Your task to perform on an android device: turn on notifications settings in the gmail app Image 0: 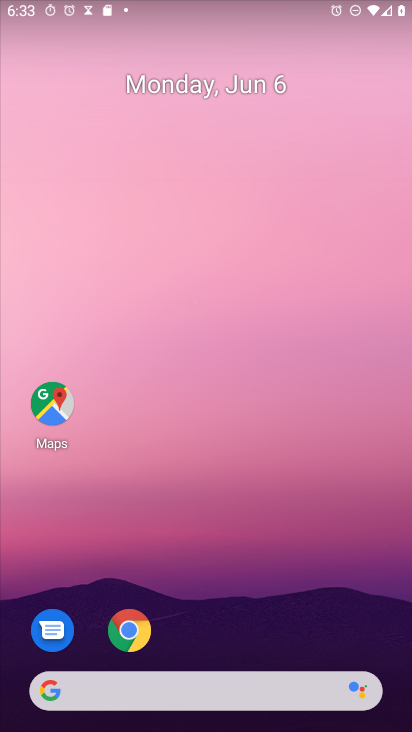
Step 0: drag from (319, 507) to (161, 28)
Your task to perform on an android device: turn on notifications settings in the gmail app Image 1: 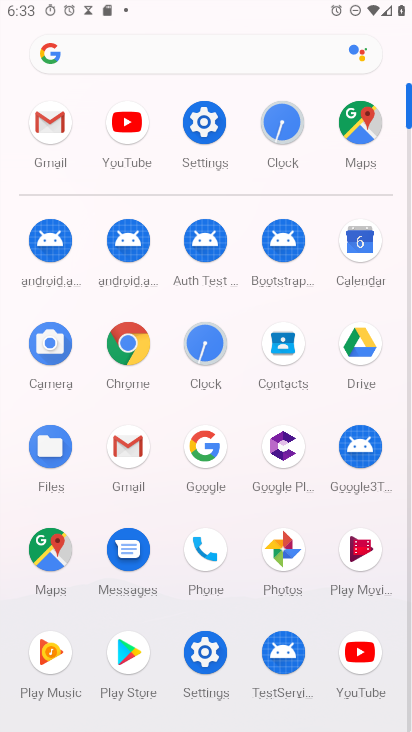
Step 1: click (133, 451)
Your task to perform on an android device: turn on notifications settings in the gmail app Image 2: 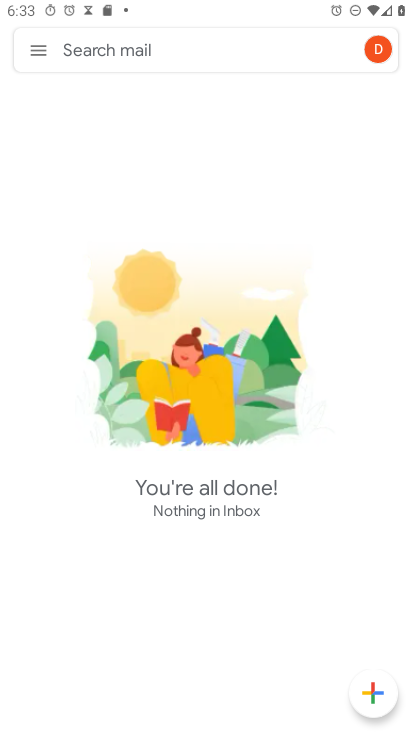
Step 2: click (39, 50)
Your task to perform on an android device: turn on notifications settings in the gmail app Image 3: 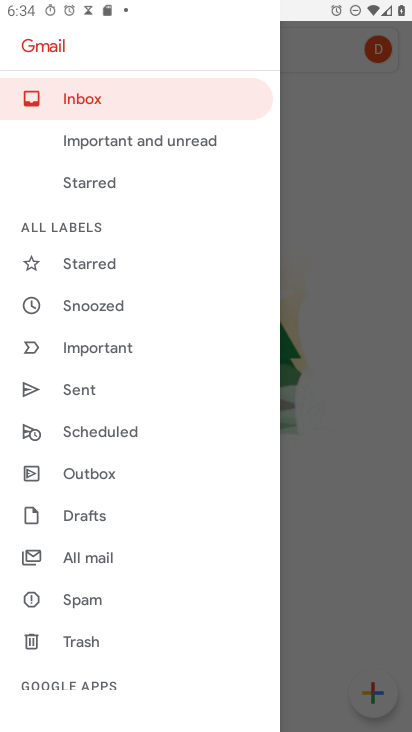
Step 3: drag from (177, 624) to (173, 159)
Your task to perform on an android device: turn on notifications settings in the gmail app Image 4: 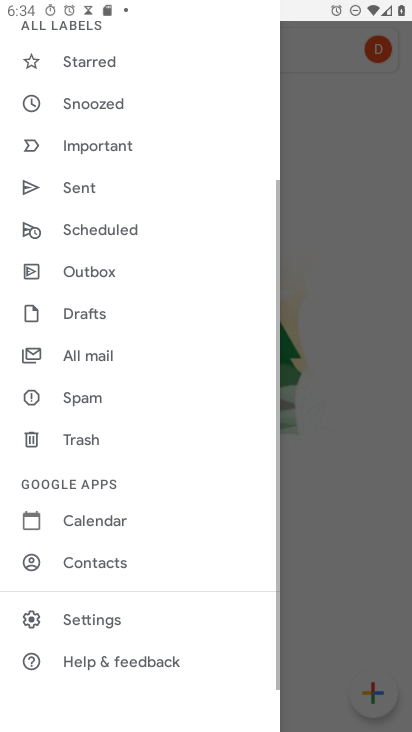
Step 4: click (140, 618)
Your task to perform on an android device: turn on notifications settings in the gmail app Image 5: 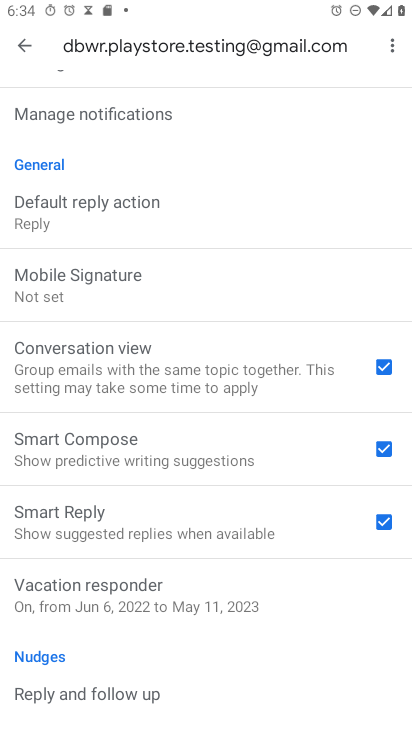
Step 5: click (140, 124)
Your task to perform on an android device: turn on notifications settings in the gmail app Image 6: 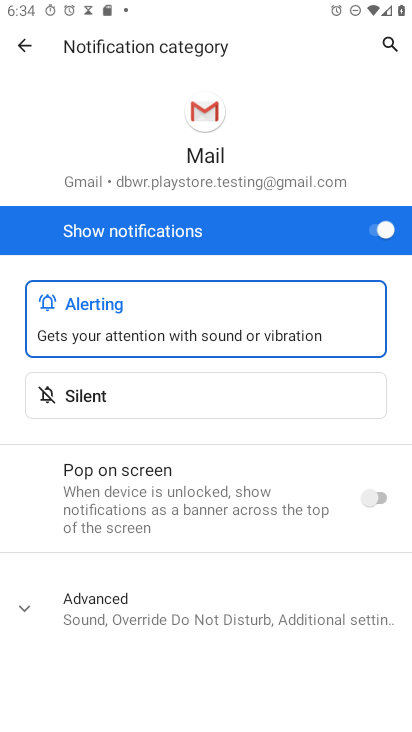
Step 6: task complete